Your task to perform on an android device: toggle sleep mode Image 0: 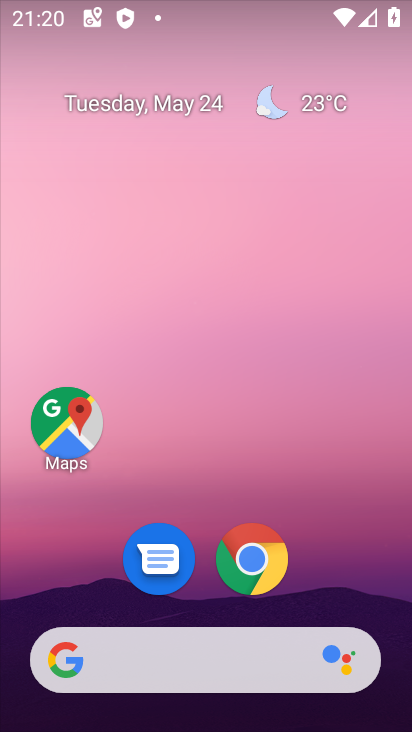
Step 0: drag from (344, 485) to (347, 56)
Your task to perform on an android device: toggle sleep mode Image 1: 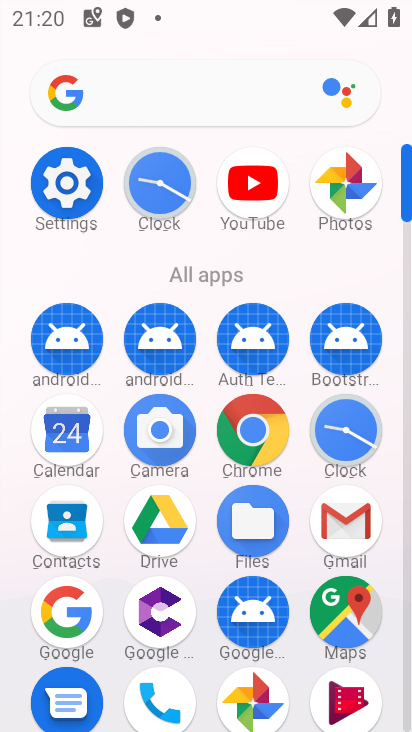
Step 1: click (70, 230)
Your task to perform on an android device: toggle sleep mode Image 2: 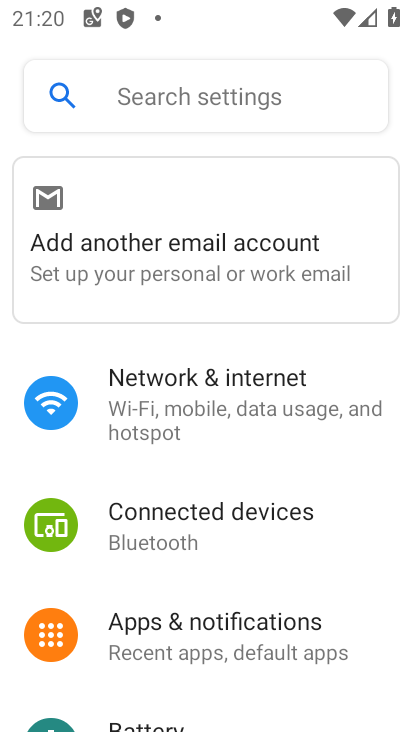
Step 2: drag from (203, 519) to (226, 171)
Your task to perform on an android device: toggle sleep mode Image 3: 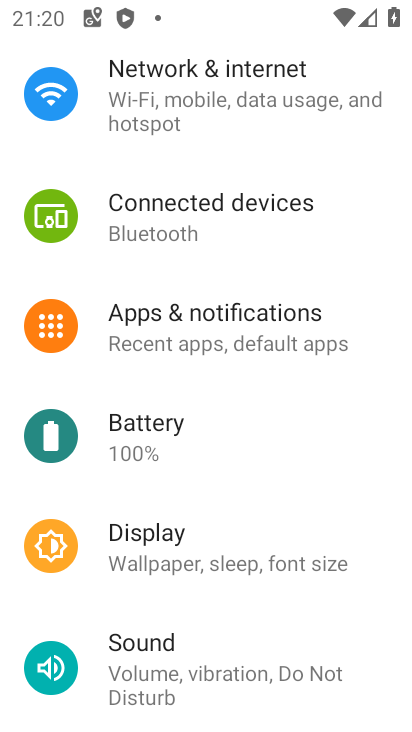
Step 3: click (165, 561)
Your task to perform on an android device: toggle sleep mode Image 4: 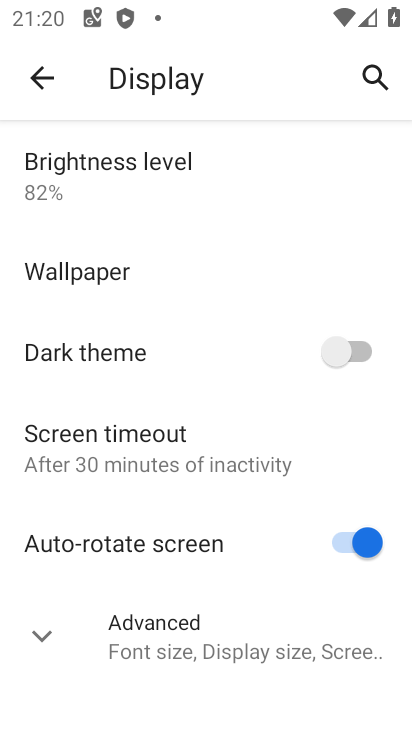
Step 4: click (229, 461)
Your task to perform on an android device: toggle sleep mode Image 5: 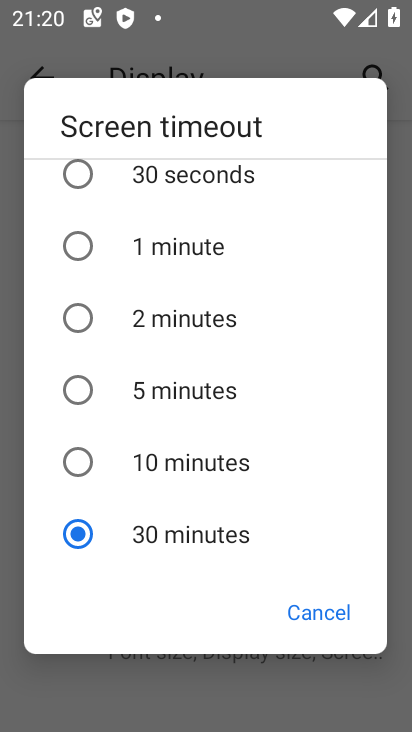
Step 5: click (213, 464)
Your task to perform on an android device: toggle sleep mode Image 6: 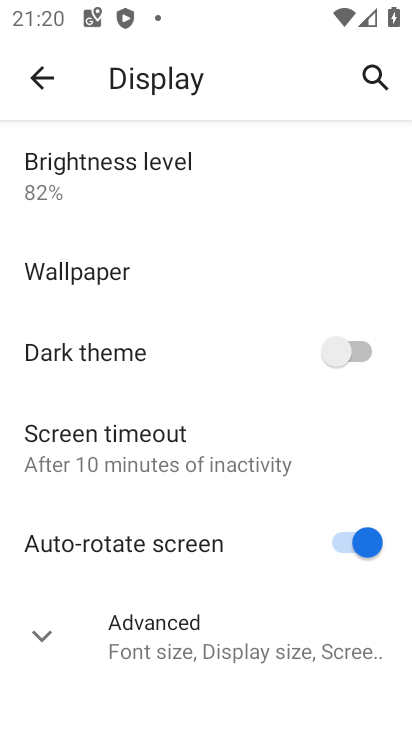
Step 6: task complete